Your task to perform on an android device: Open Google Chrome and open the bookmarks view Image 0: 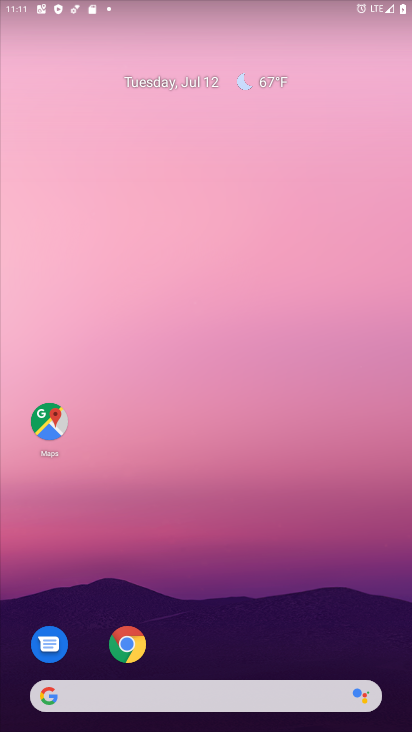
Step 0: drag from (301, 193) to (289, 643)
Your task to perform on an android device: Open Google Chrome and open the bookmarks view Image 1: 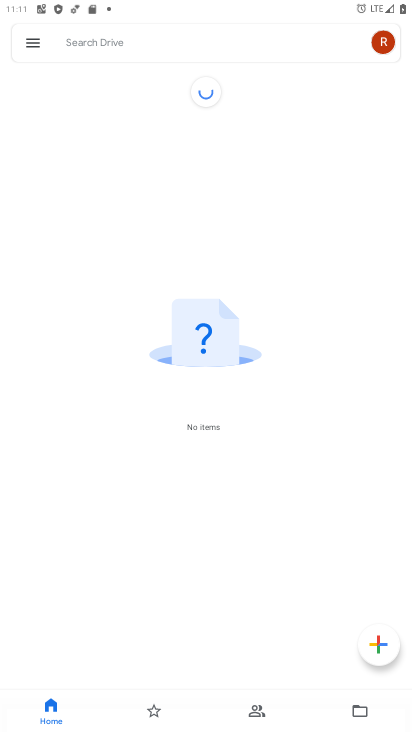
Step 1: drag from (223, 596) to (245, 174)
Your task to perform on an android device: Open Google Chrome and open the bookmarks view Image 2: 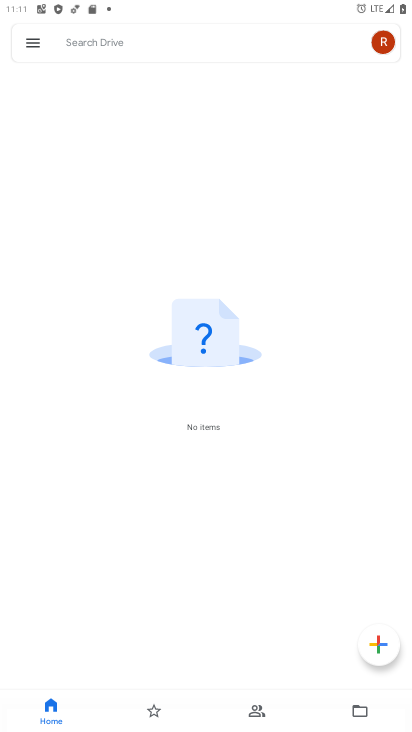
Step 2: drag from (244, 134) to (256, 476)
Your task to perform on an android device: Open Google Chrome and open the bookmarks view Image 3: 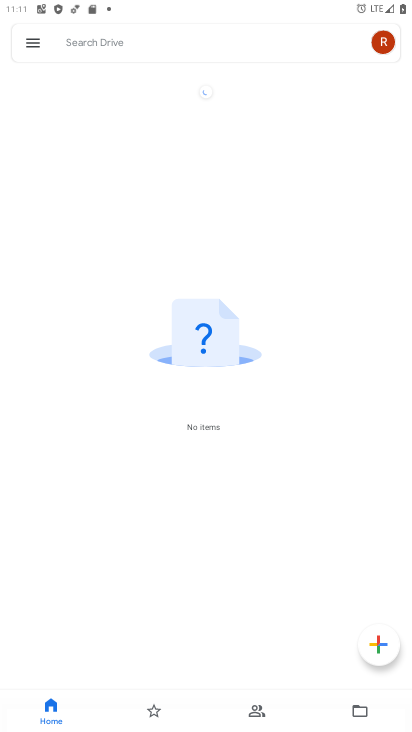
Step 3: drag from (234, 405) to (281, 103)
Your task to perform on an android device: Open Google Chrome and open the bookmarks view Image 4: 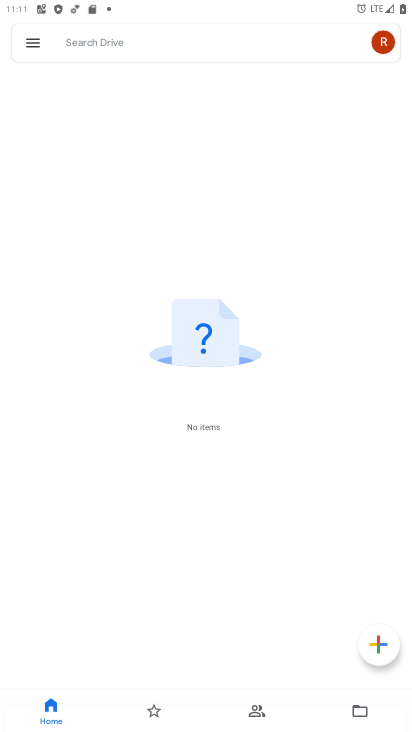
Step 4: drag from (244, 178) to (268, 502)
Your task to perform on an android device: Open Google Chrome and open the bookmarks view Image 5: 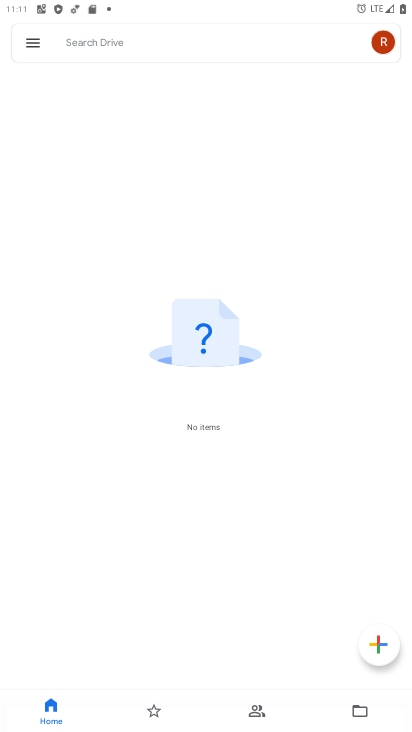
Step 5: press home button
Your task to perform on an android device: Open Google Chrome and open the bookmarks view Image 6: 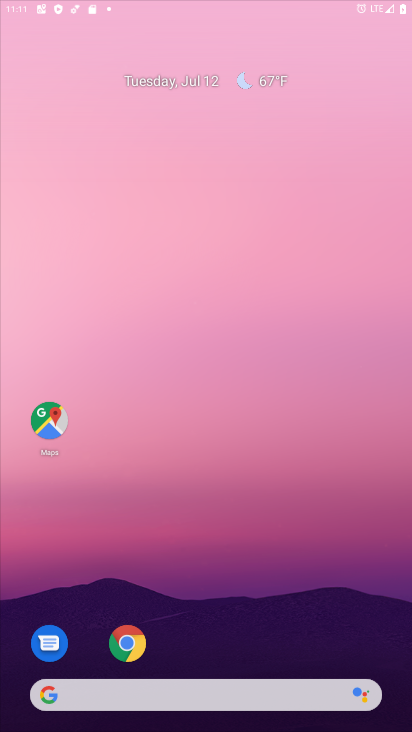
Step 6: drag from (185, 620) to (224, 177)
Your task to perform on an android device: Open Google Chrome and open the bookmarks view Image 7: 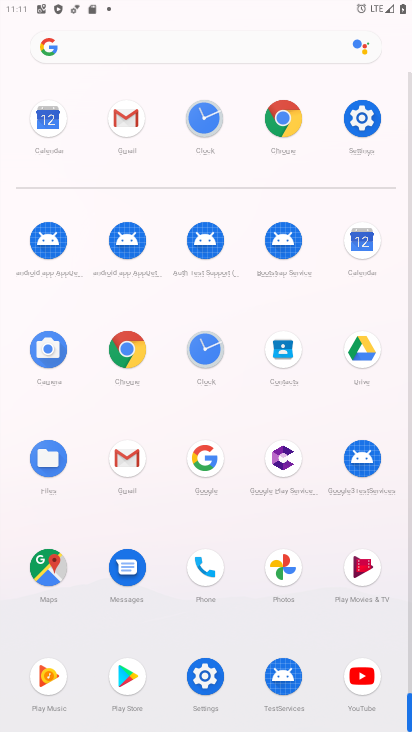
Step 7: click (278, 106)
Your task to perform on an android device: Open Google Chrome and open the bookmarks view Image 8: 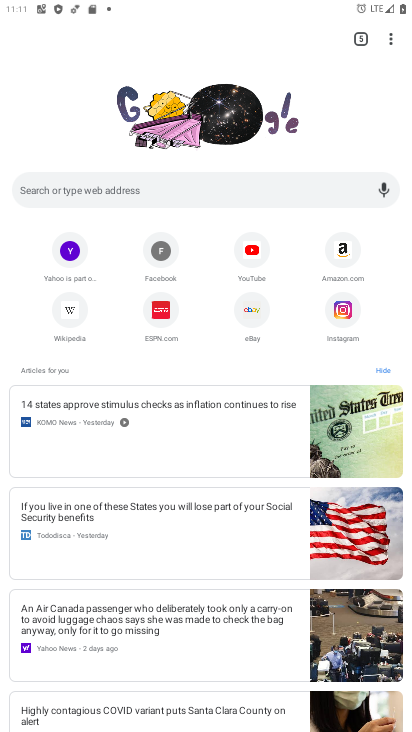
Step 8: click (390, 33)
Your task to perform on an android device: Open Google Chrome and open the bookmarks view Image 9: 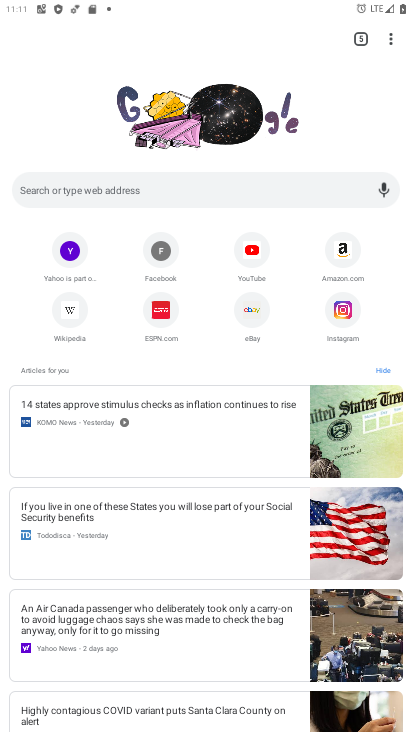
Step 9: click (384, 36)
Your task to perform on an android device: Open Google Chrome and open the bookmarks view Image 10: 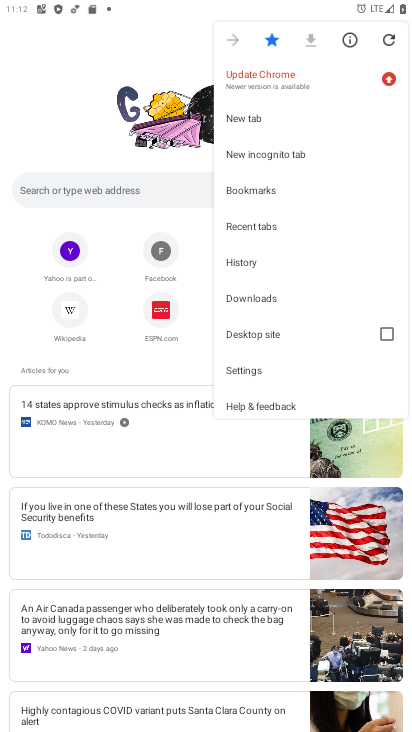
Step 10: click (263, 184)
Your task to perform on an android device: Open Google Chrome and open the bookmarks view Image 11: 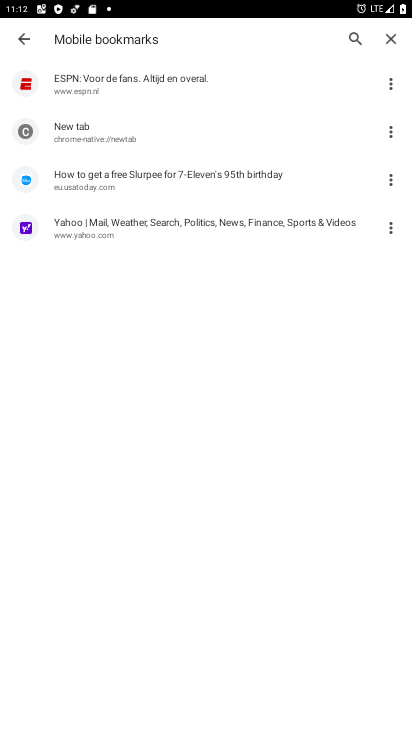
Step 11: task complete